Your task to perform on an android device: toggle improve location accuracy Image 0: 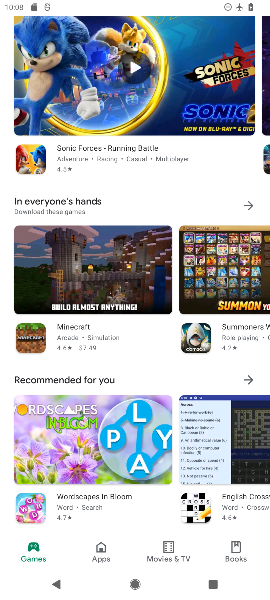
Step 0: press home button
Your task to perform on an android device: toggle improve location accuracy Image 1: 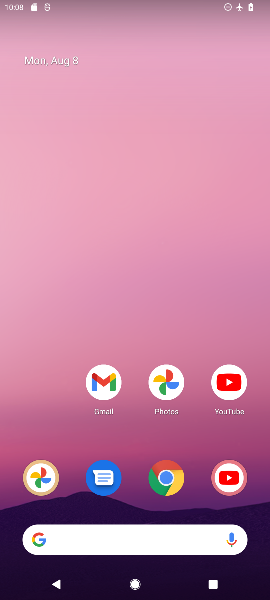
Step 1: drag from (145, 520) to (89, 50)
Your task to perform on an android device: toggle improve location accuracy Image 2: 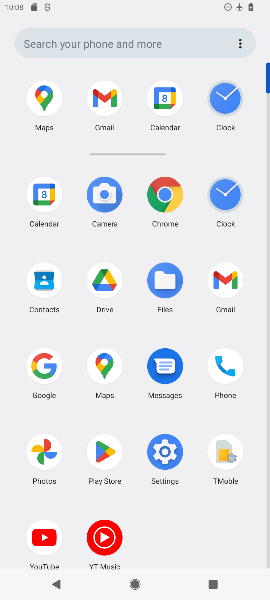
Step 2: click (170, 451)
Your task to perform on an android device: toggle improve location accuracy Image 3: 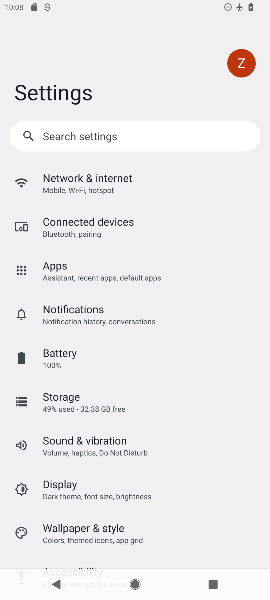
Step 3: drag from (94, 440) to (92, 158)
Your task to perform on an android device: toggle improve location accuracy Image 4: 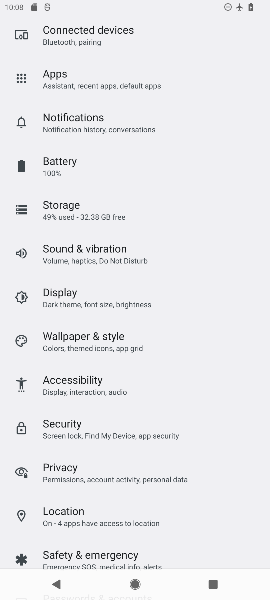
Step 4: click (99, 528)
Your task to perform on an android device: toggle improve location accuracy Image 5: 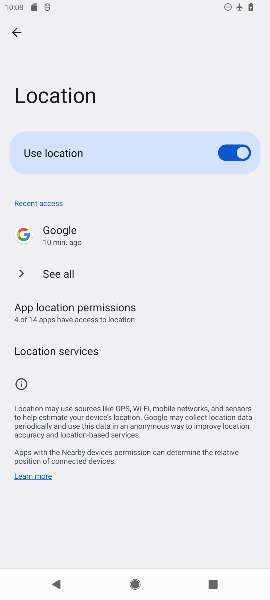
Step 5: click (58, 336)
Your task to perform on an android device: toggle improve location accuracy Image 6: 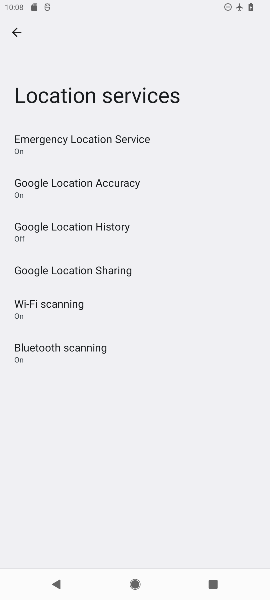
Step 6: click (98, 189)
Your task to perform on an android device: toggle improve location accuracy Image 7: 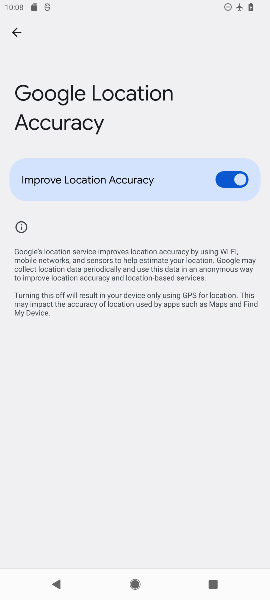
Step 7: click (233, 184)
Your task to perform on an android device: toggle improve location accuracy Image 8: 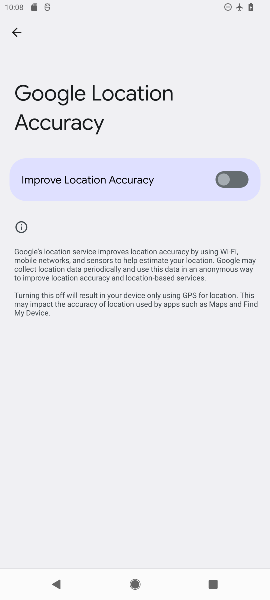
Step 8: task complete